Your task to perform on an android device: empty trash in the gmail app Image 0: 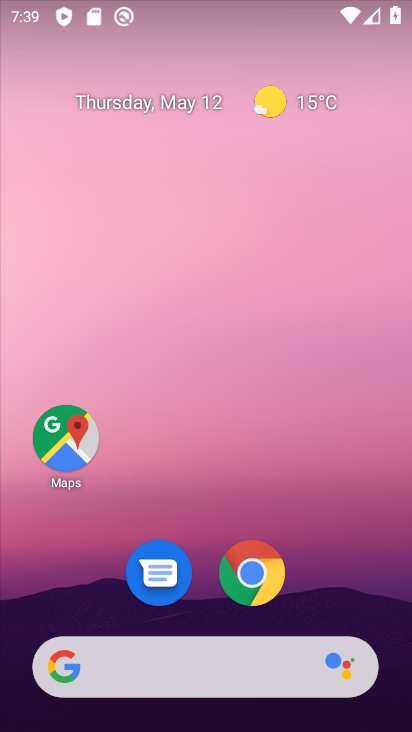
Step 0: drag from (333, 523) to (183, 26)
Your task to perform on an android device: empty trash in the gmail app Image 1: 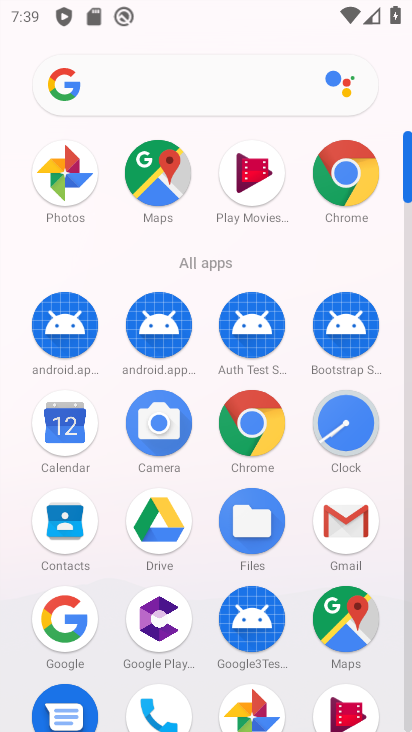
Step 1: click (352, 515)
Your task to perform on an android device: empty trash in the gmail app Image 2: 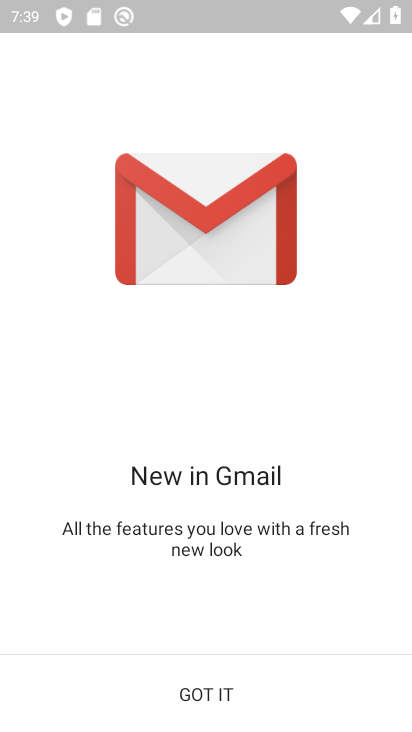
Step 2: click (199, 682)
Your task to perform on an android device: empty trash in the gmail app Image 3: 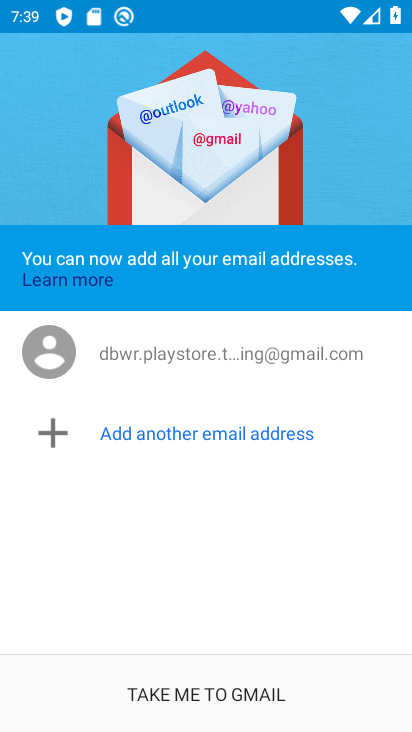
Step 3: click (213, 695)
Your task to perform on an android device: empty trash in the gmail app Image 4: 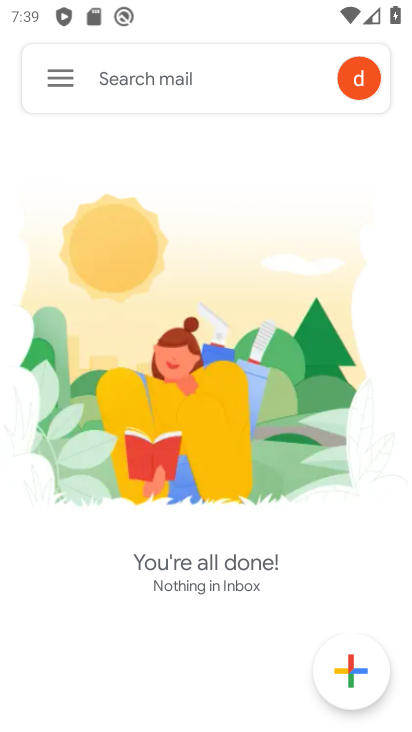
Step 4: click (66, 78)
Your task to perform on an android device: empty trash in the gmail app Image 5: 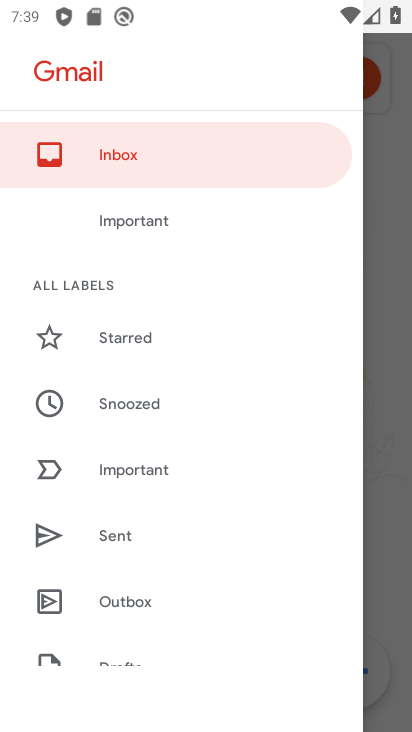
Step 5: drag from (185, 543) to (166, 277)
Your task to perform on an android device: empty trash in the gmail app Image 6: 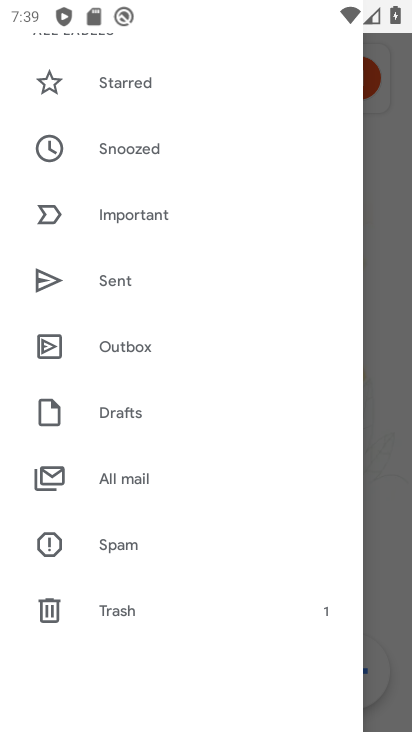
Step 6: click (126, 615)
Your task to perform on an android device: empty trash in the gmail app Image 7: 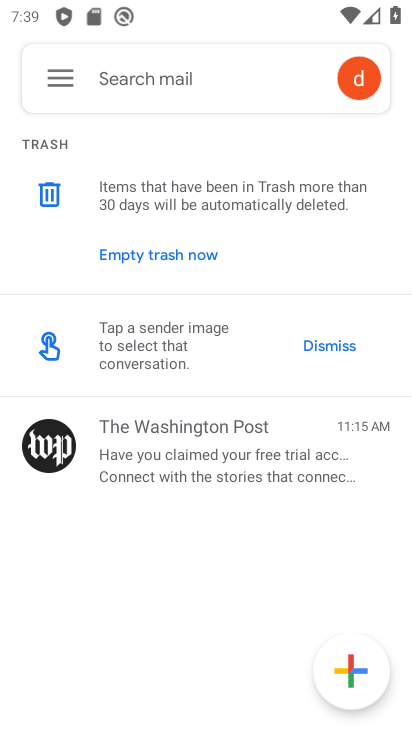
Step 7: click (150, 252)
Your task to perform on an android device: empty trash in the gmail app Image 8: 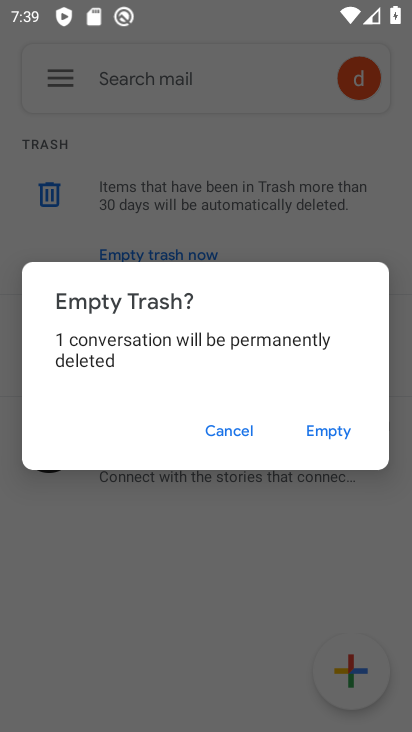
Step 8: click (324, 425)
Your task to perform on an android device: empty trash in the gmail app Image 9: 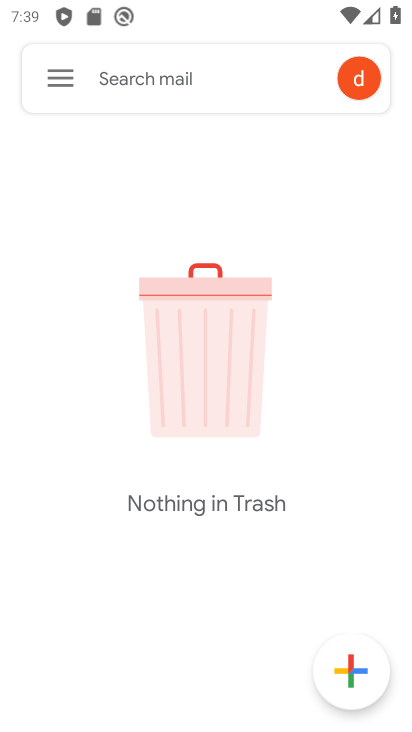
Step 9: task complete